Your task to perform on an android device: toggle notifications settings in the gmail app Image 0: 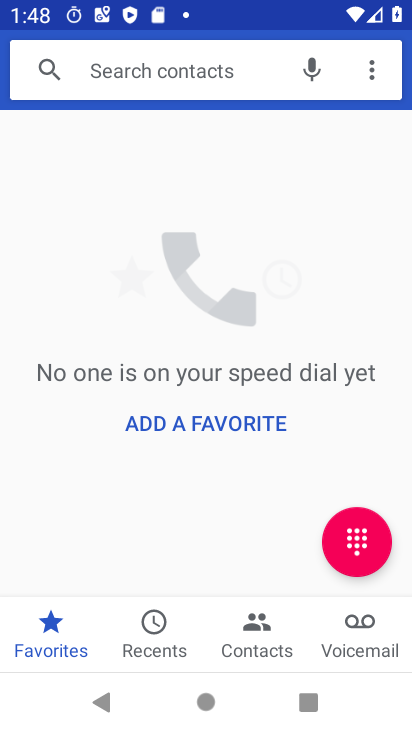
Step 0: press home button
Your task to perform on an android device: toggle notifications settings in the gmail app Image 1: 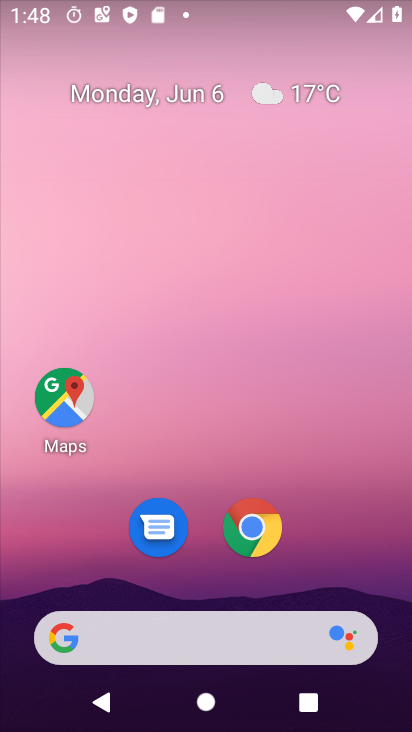
Step 1: drag from (231, 724) to (173, 64)
Your task to perform on an android device: toggle notifications settings in the gmail app Image 2: 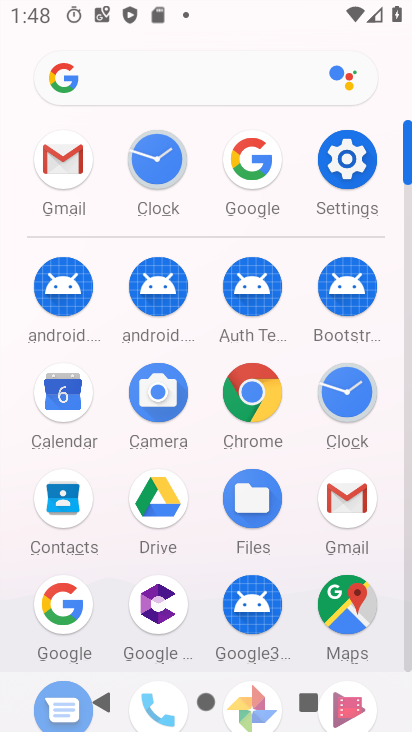
Step 2: click (348, 513)
Your task to perform on an android device: toggle notifications settings in the gmail app Image 3: 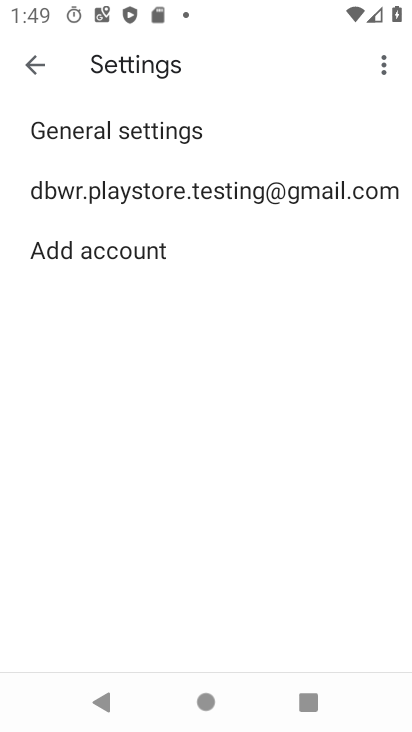
Step 3: click (202, 193)
Your task to perform on an android device: toggle notifications settings in the gmail app Image 4: 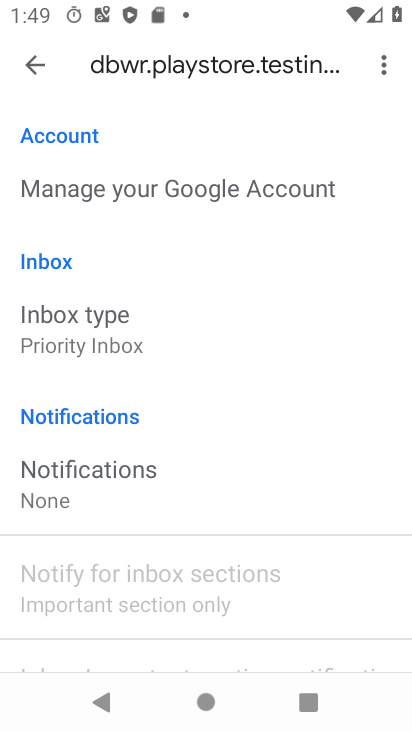
Step 4: click (53, 490)
Your task to perform on an android device: toggle notifications settings in the gmail app Image 5: 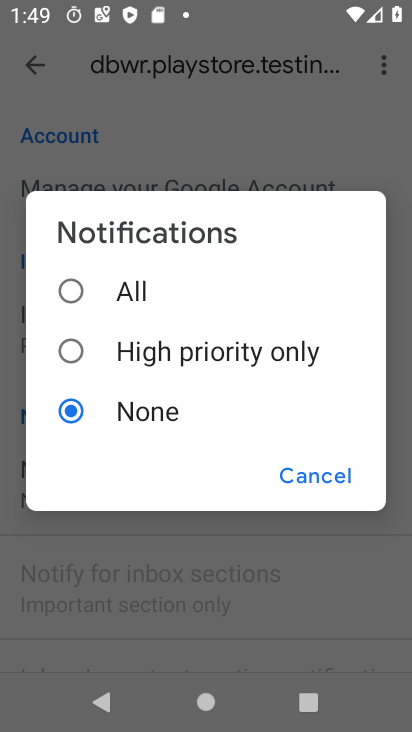
Step 5: click (69, 291)
Your task to perform on an android device: toggle notifications settings in the gmail app Image 6: 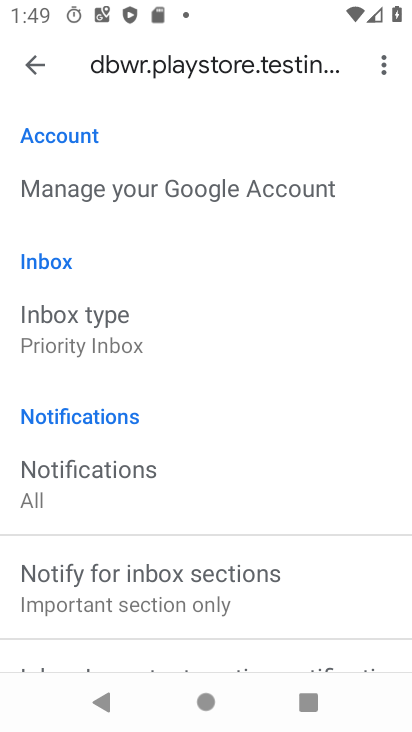
Step 6: task complete